Your task to perform on an android device: open app "Booking.com: Hotels and more" (install if not already installed) Image 0: 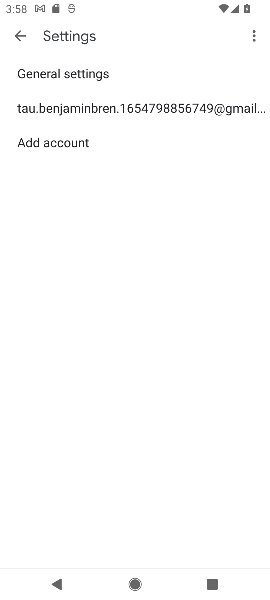
Step 0: press home button
Your task to perform on an android device: open app "Booking.com: Hotels and more" (install if not already installed) Image 1: 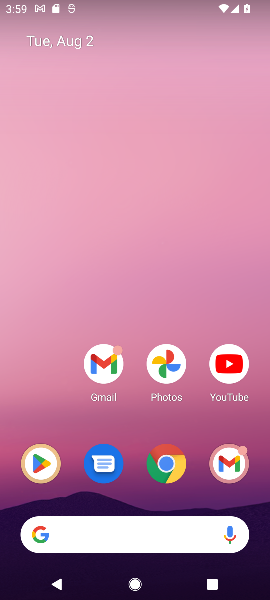
Step 1: click (33, 465)
Your task to perform on an android device: open app "Booking.com: Hotels and more" (install if not already installed) Image 2: 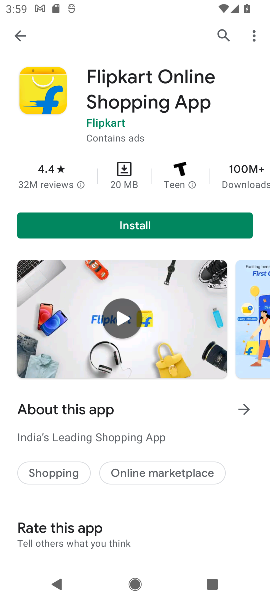
Step 2: click (216, 35)
Your task to perform on an android device: open app "Booking.com: Hotels and more" (install if not already installed) Image 3: 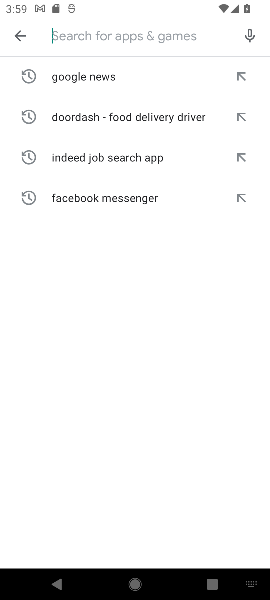
Step 3: type "Booking.com: Hotels and more"
Your task to perform on an android device: open app "Booking.com: Hotels and more" (install if not already installed) Image 4: 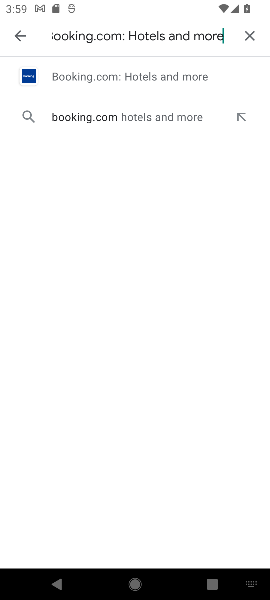
Step 4: click (177, 76)
Your task to perform on an android device: open app "Booking.com: Hotels and more" (install if not already installed) Image 5: 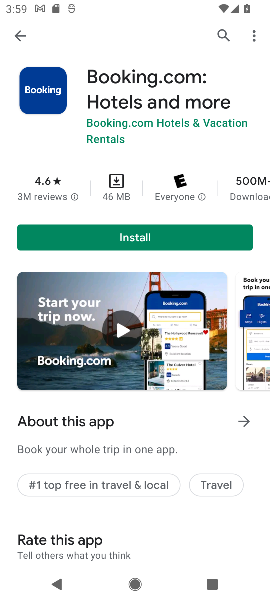
Step 5: click (138, 236)
Your task to perform on an android device: open app "Booking.com: Hotels and more" (install if not already installed) Image 6: 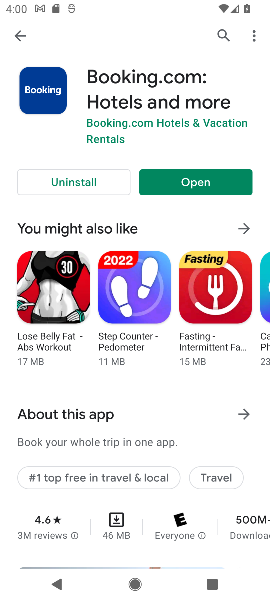
Step 6: click (184, 178)
Your task to perform on an android device: open app "Booking.com: Hotels and more" (install if not already installed) Image 7: 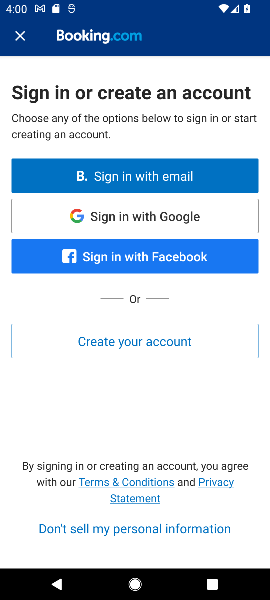
Step 7: task complete